Your task to perform on an android device: Play the last video I watched on Youtube Image 0: 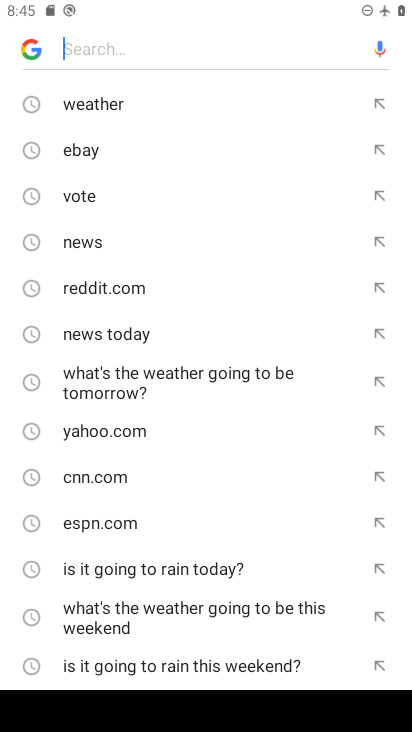
Step 0: press home button
Your task to perform on an android device: Play the last video I watched on Youtube Image 1: 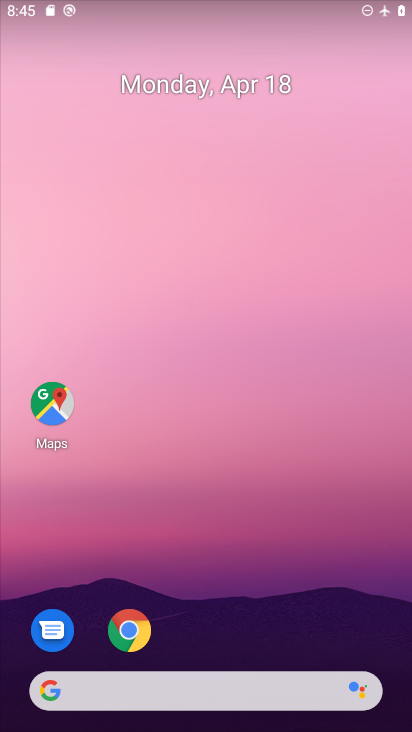
Step 1: drag from (242, 538) to (356, 181)
Your task to perform on an android device: Play the last video I watched on Youtube Image 2: 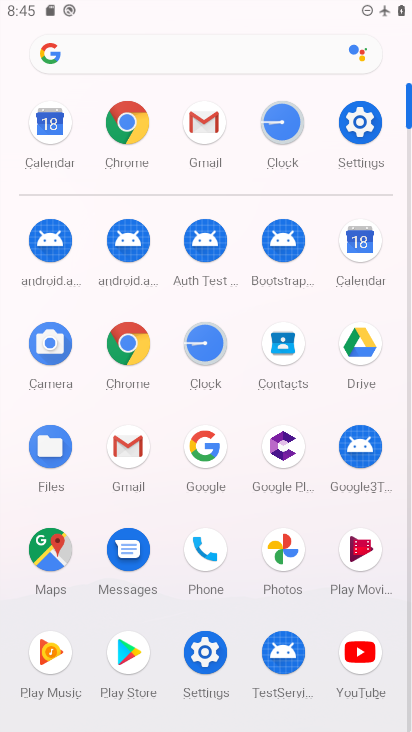
Step 2: click (364, 662)
Your task to perform on an android device: Play the last video I watched on Youtube Image 3: 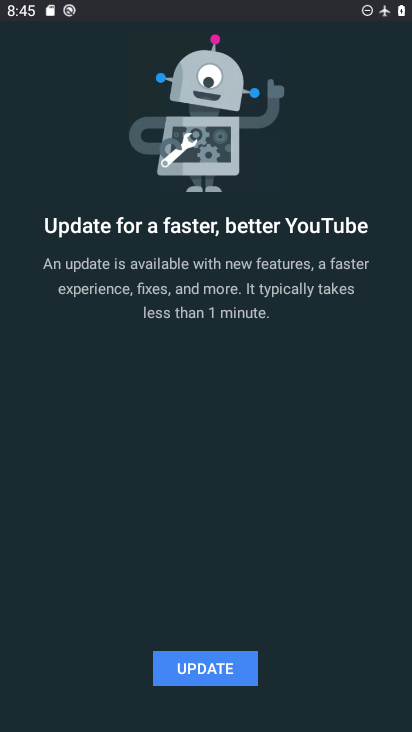
Step 3: click (225, 674)
Your task to perform on an android device: Play the last video I watched on Youtube Image 4: 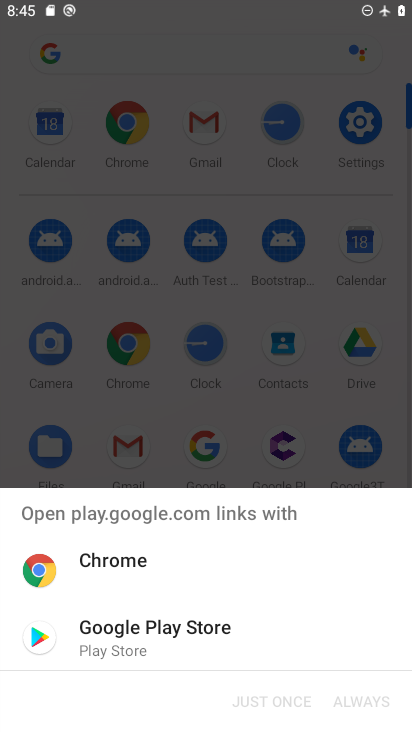
Step 4: click (129, 635)
Your task to perform on an android device: Play the last video I watched on Youtube Image 5: 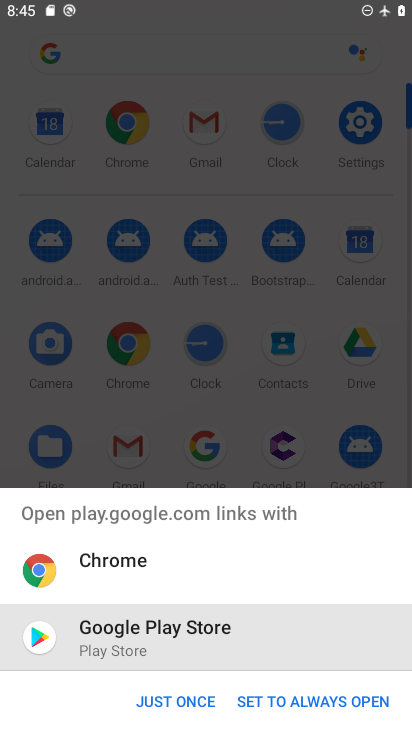
Step 5: click (187, 700)
Your task to perform on an android device: Play the last video I watched on Youtube Image 6: 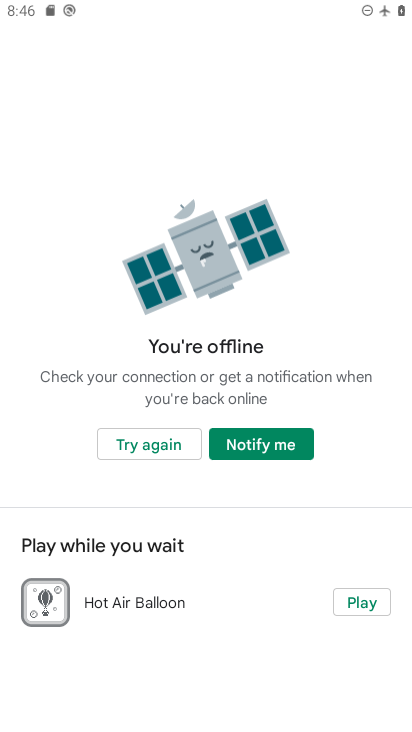
Step 6: click (162, 444)
Your task to perform on an android device: Play the last video I watched on Youtube Image 7: 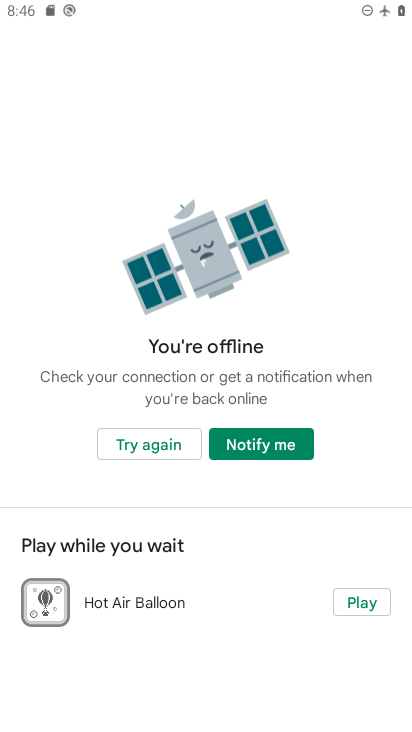
Step 7: task complete